Your task to perform on an android device: open chrome privacy settings Image 0: 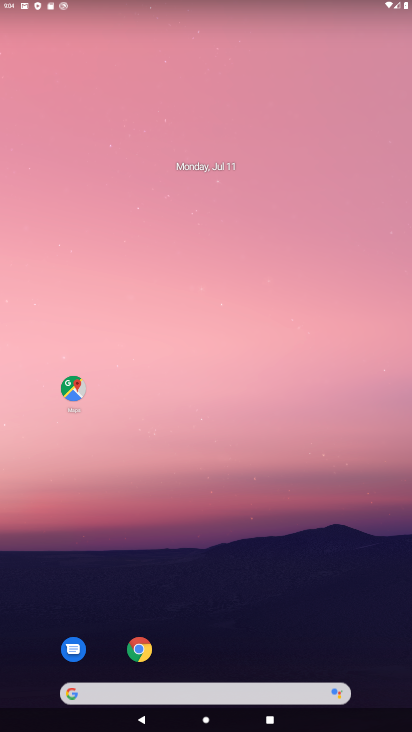
Step 0: drag from (249, 602) to (299, 16)
Your task to perform on an android device: open chrome privacy settings Image 1: 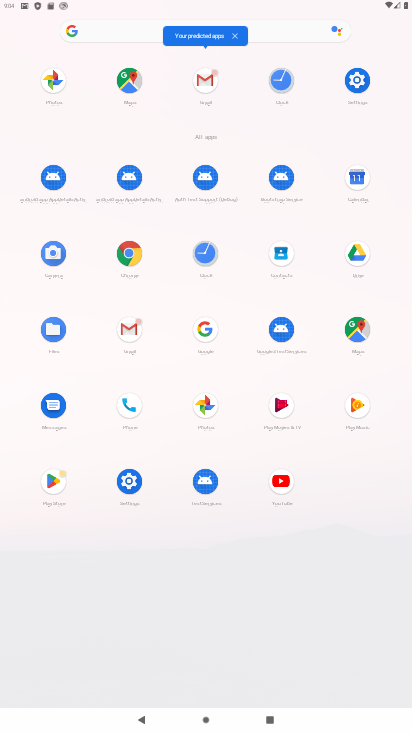
Step 1: click (125, 252)
Your task to perform on an android device: open chrome privacy settings Image 2: 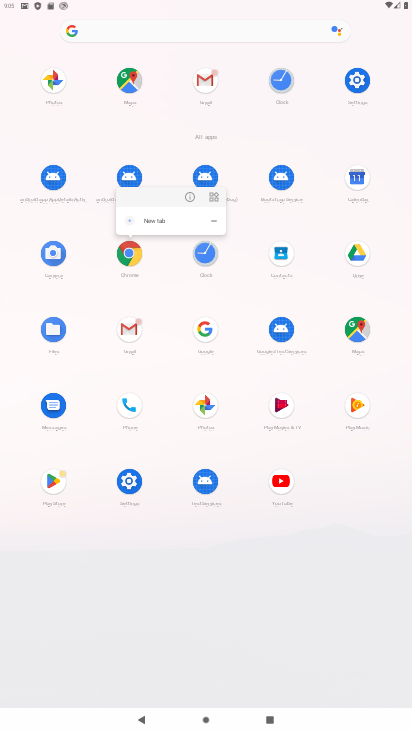
Step 2: click (123, 244)
Your task to perform on an android device: open chrome privacy settings Image 3: 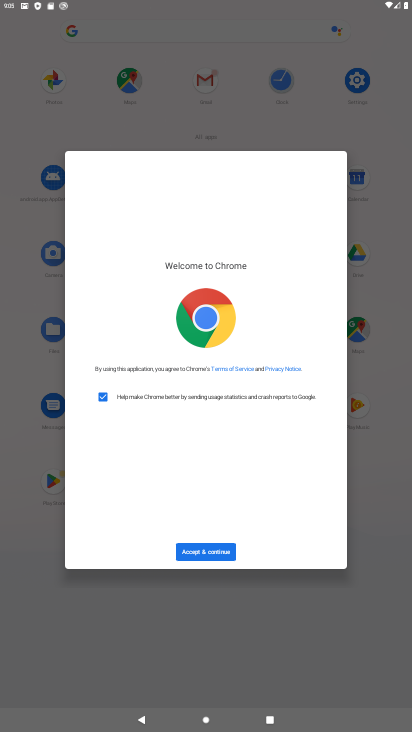
Step 3: click (194, 550)
Your task to perform on an android device: open chrome privacy settings Image 4: 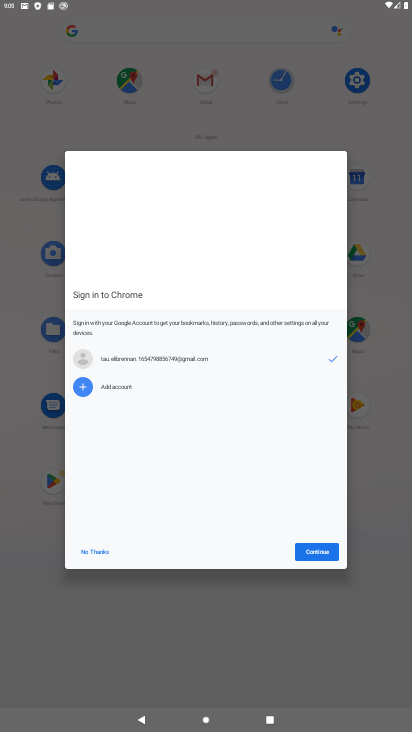
Step 4: click (98, 550)
Your task to perform on an android device: open chrome privacy settings Image 5: 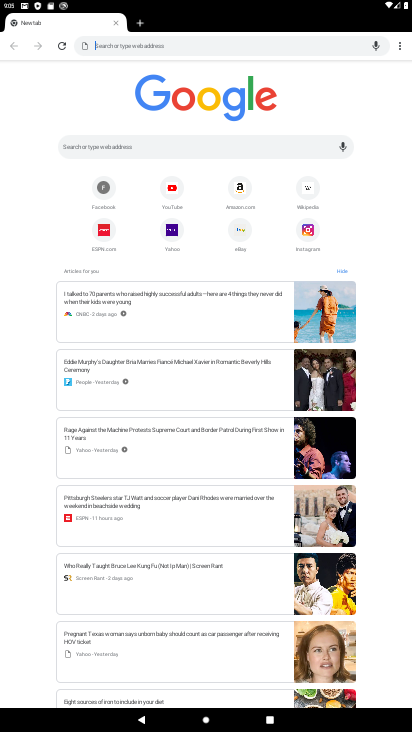
Step 5: drag from (399, 46) to (292, 210)
Your task to perform on an android device: open chrome privacy settings Image 6: 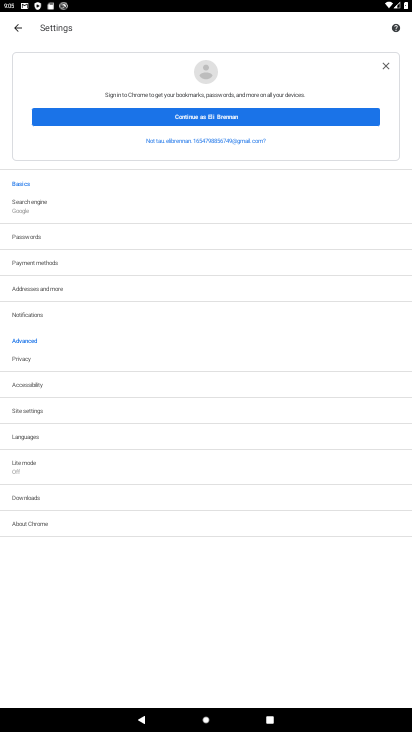
Step 6: click (27, 362)
Your task to perform on an android device: open chrome privacy settings Image 7: 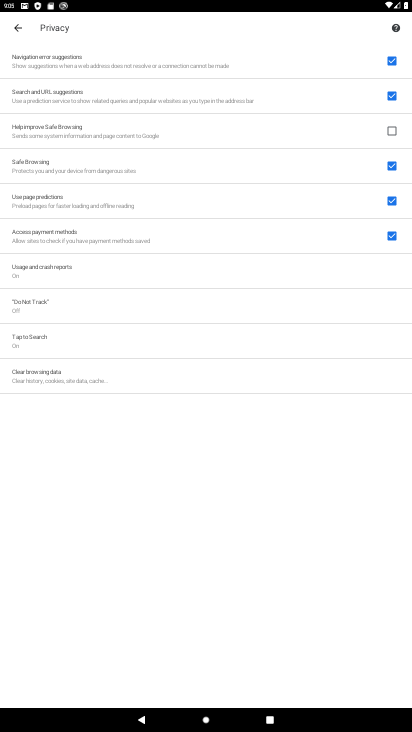
Step 7: task complete